Your task to perform on an android device: Go to display settings Image 0: 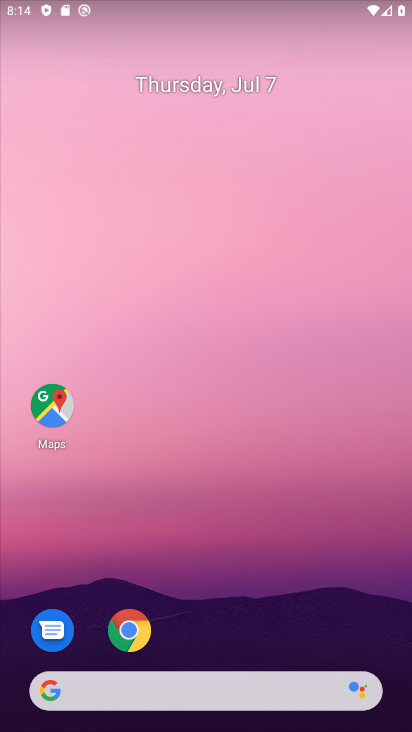
Step 0: drag from (195, 603) to (212, 216)
Your task to perform on an android device: Go to display settings Image 1: 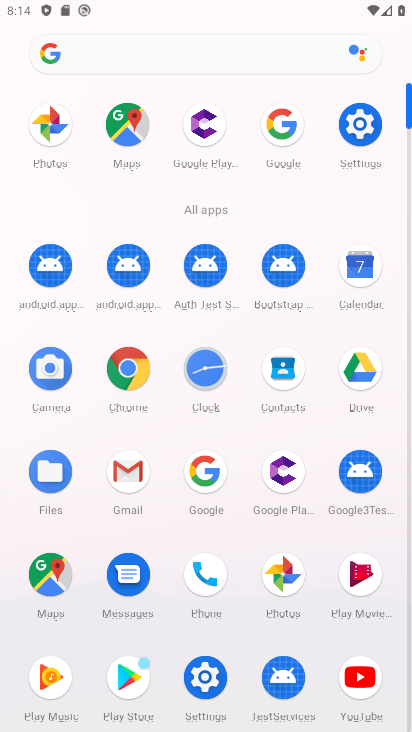
Step 1: click (349, 136)
Your task to perform on an android device: Go to display settings Image 2: 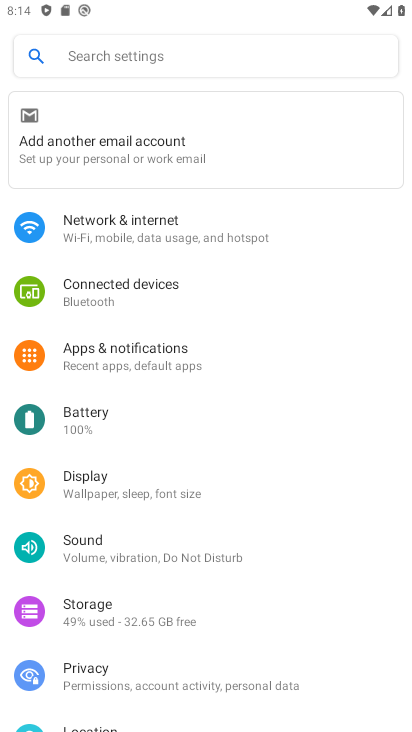
Step 2: click (111, 475)
Your task to perform on an android device: Go to display settings Image 3: 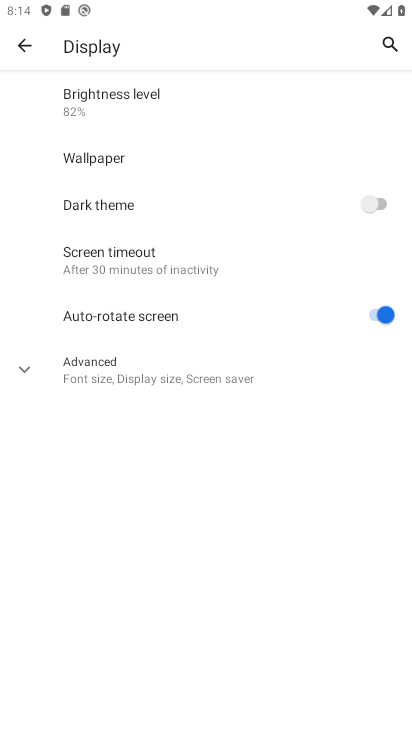
Step 3: task complete